Your task to perform on an android device: turn on javascript in the chrome app Image 0: 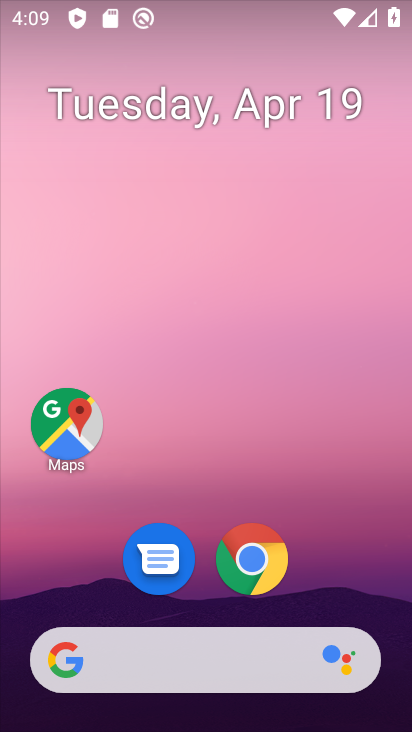
Step 0: click (281, 569)
Your task to perform on an android device: turn on javascript in the chrome app Image 1: 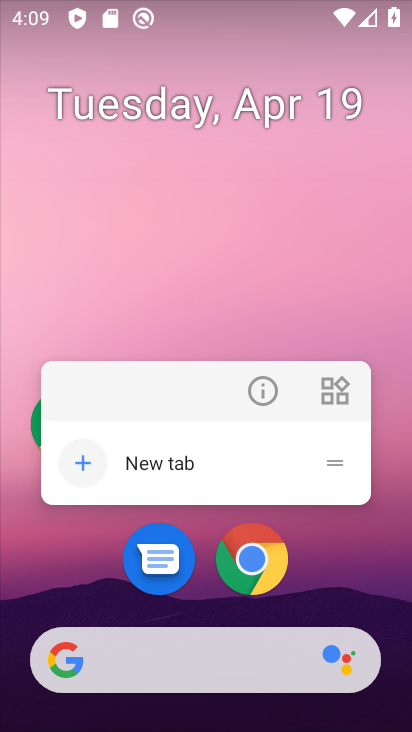
Step 1: click (159, 288)
Your task to perform on an android device: turn on javascript in the chrome app Image 2: 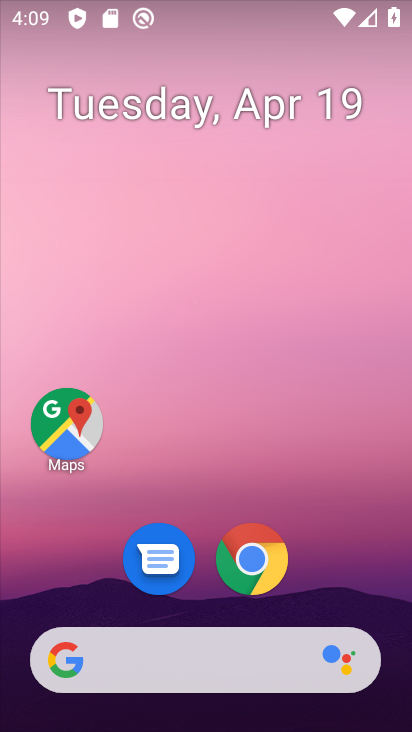
Step 2: click (243, 567)
Your task to perform on an android device: turn on javascript in the chrome app Image 3: 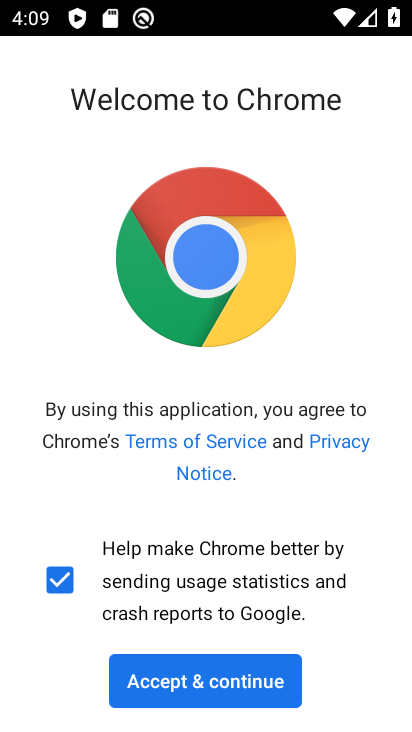
Step 3: click (241, 691)
Your task to perform on an android device: turn on javascript in the chrome app Image 4: 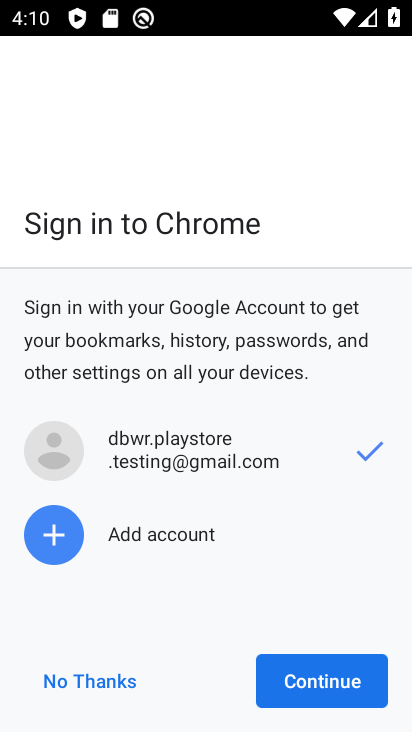
Step 4: click (311, 661)
Your task to perform on an android device: turn on javascript in the chrome app Image 5: 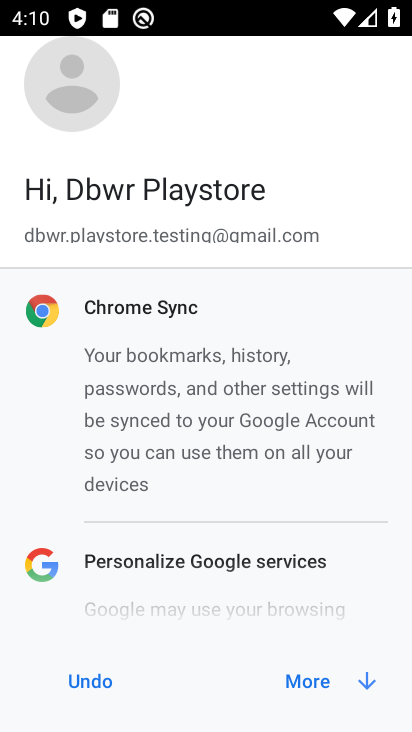
Step 5: click (314, 699)
Your task to perform on an android device: turn on javascript in the chrome app Image 6: 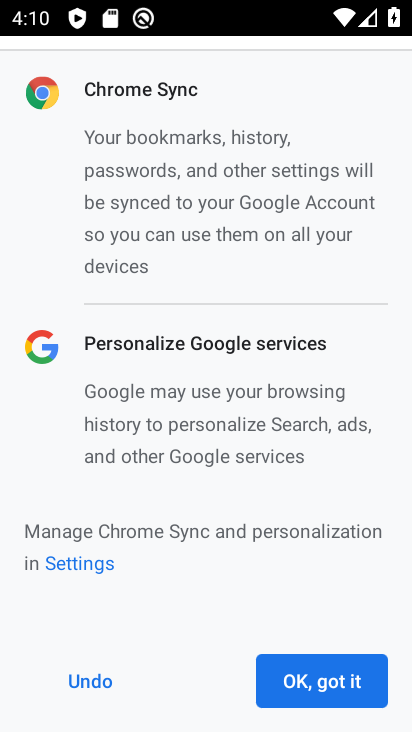
Step 6: click (314, 699)
Your task to perform on an android device: turn on javascript in the chrome app Image 7: 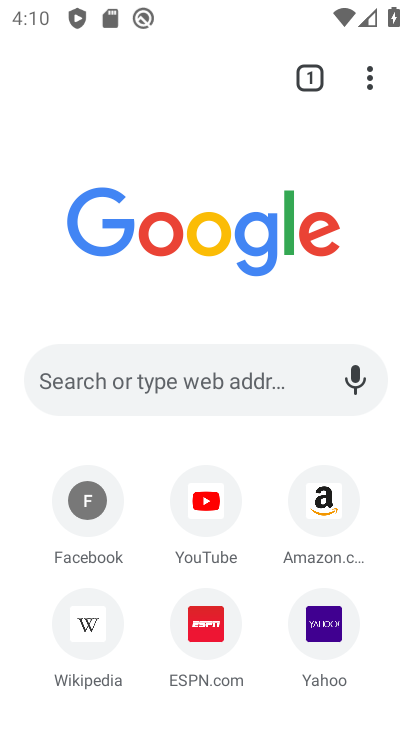
Step 7: click (370, 90)
Your task to perform on an android device: turn on javascript in the chrome app Image 8: 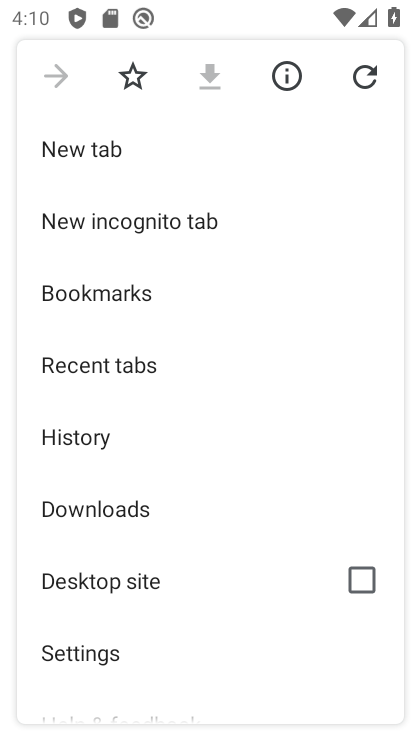
Step 8: click (170, 671)
Your task to perform on an android device: turn on javascript in the chrome app Image 9: 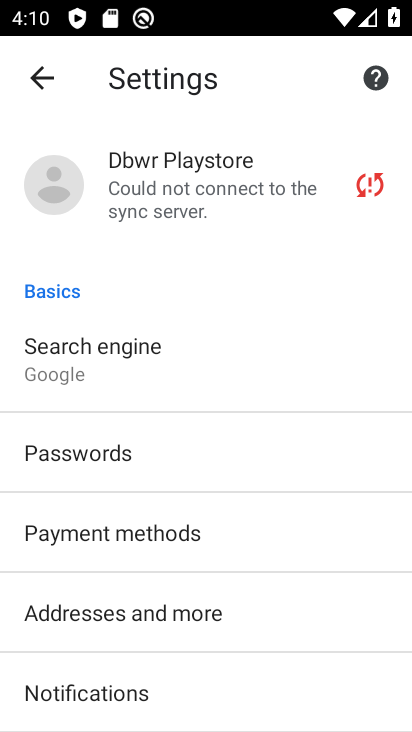
Step 9: drag from (116, 616) to (120, 447)
Your task to perform on an android device: turn on javascript in the chrome app Image 10: 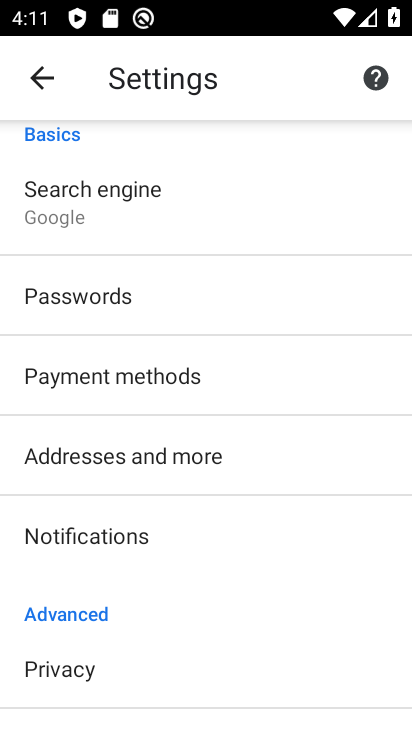
Step 10: drag from (154, 640) to (166, 396)
Your task to perform on an android device: turn on javascript in the chrome app Image 11: 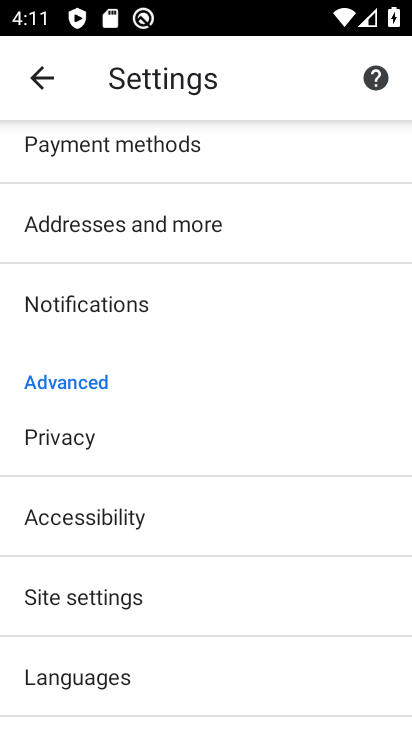
Step 11: click (72, 572)
Your task to perform on an android device: turn on javascript in the chrome app Image 12: 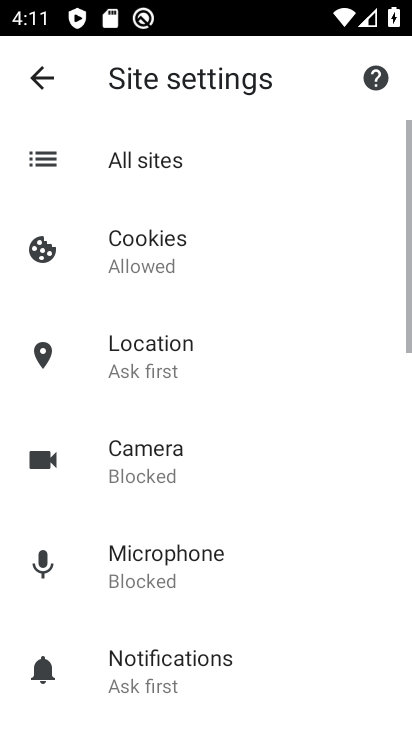
Step 12: drag from (72, 572) to (122, 213)
Your task to perform on an android device: turn on javascript in the chrome app Image 13: 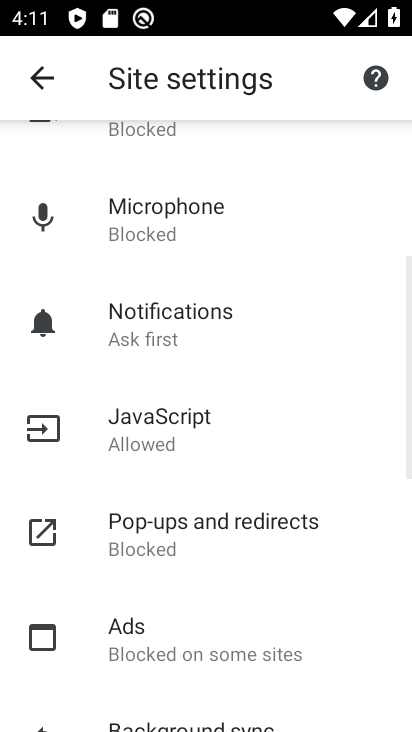
Step 13: drag from (218, 604) to (225, 535)
Your task to perform on an android device: turn on javascript in the chrome app Image 14: 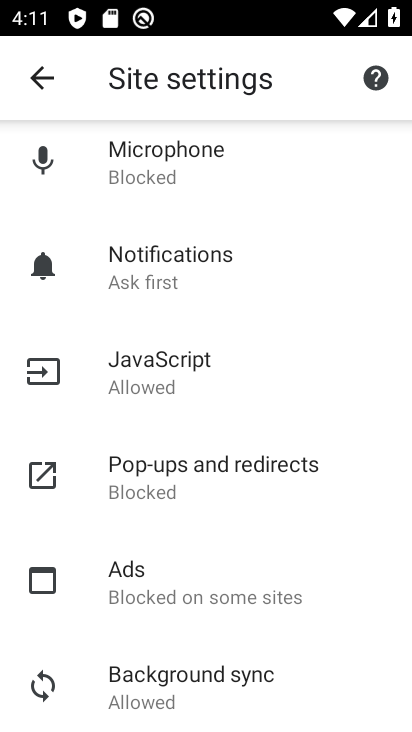
Step 14: click (195, 397)
Your task to perform on an android device: turn on javascript in the chrome app Image 15: 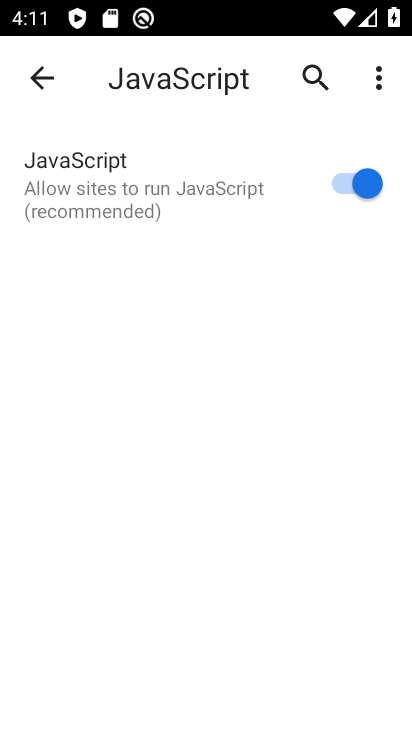
Step 15: task complete